Your task to perform on an android device: see creations saved in the google photos Image 0: 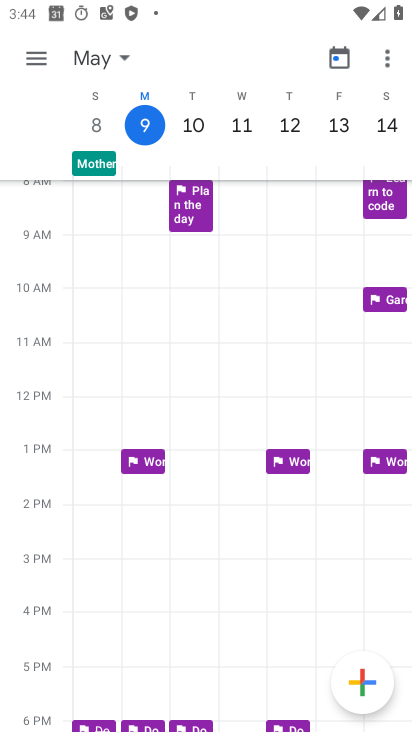
Step 0: press home button
Your task to perform on an android device: see creations saved in the google photos Image 1: 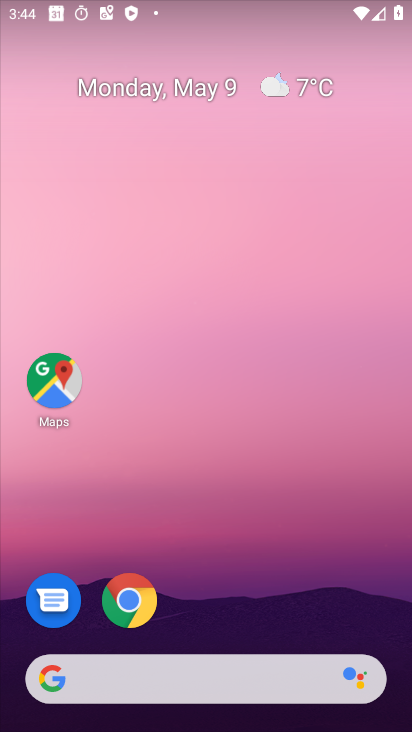
Step 1: drag from (273, 611) to (246, 107)
Your task to perform on an android device: see creations saved in the google photos Image 2: 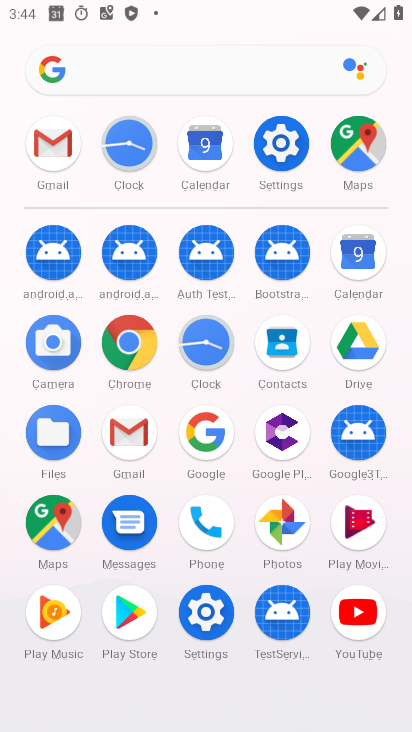
Step 2: click (284, 528)
Your task to perform on an android device: see creations saved in the google photos Image 3: 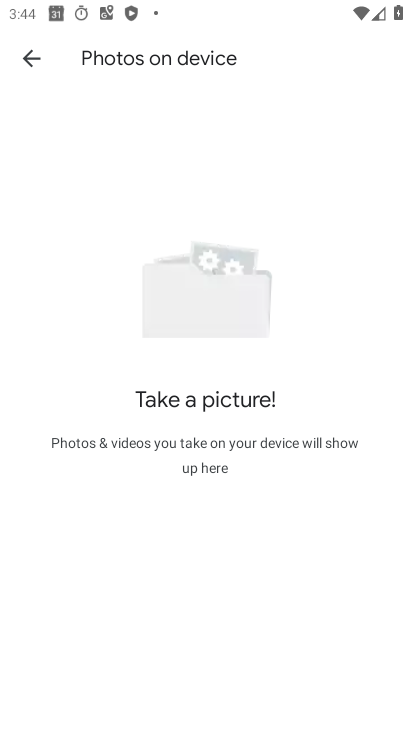
Step 3: click (36, 54)
Your task to perform on an android device: see creations saved in the google photos Image 4: 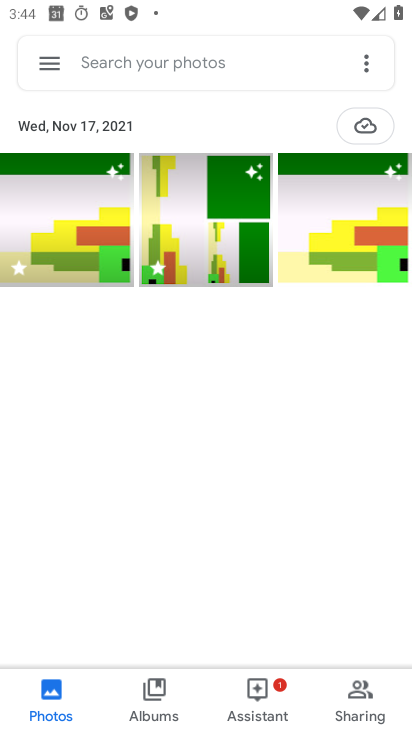
Step 4: click (158, 694)
Your task to perform on an android device: see creations saved in the google photos Image 5: 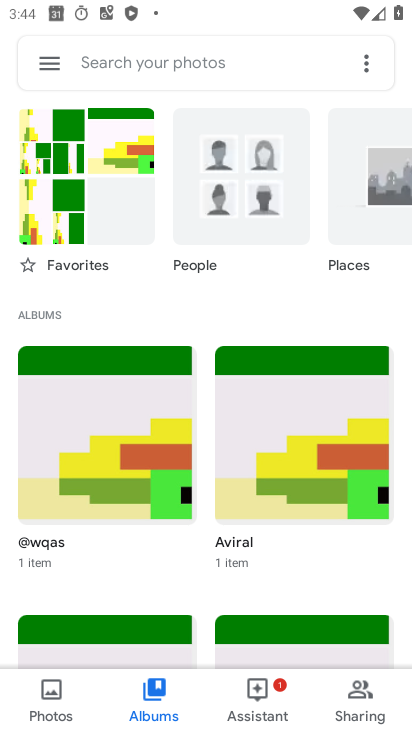
Step 5: drag from (344, 202) to (66, 217)
Your task to perform on an android device: see creations saved in the google photos Image 6: 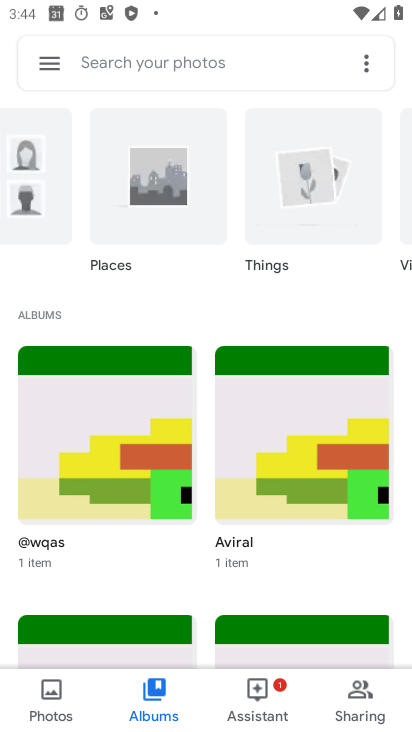
Step 6: drag from (326, 192) to (3, 328)
Your task to perform on an android device: see creations saved in the google photos Image 7: 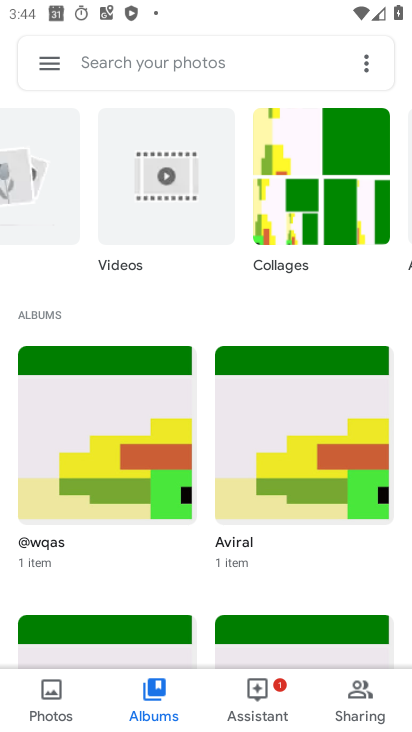
Step 7: drag from (308, 164) to (12, 333)
Your task to perform on an android device: see creations saved in the google photos Image 8: 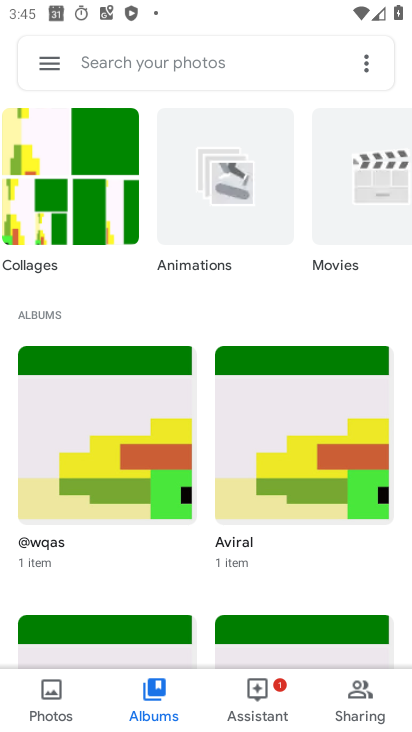
Step 8: drag from (274, 165) to (5, 470)
Your task to perform on an android device: see creations saved in the google photos Image 9: 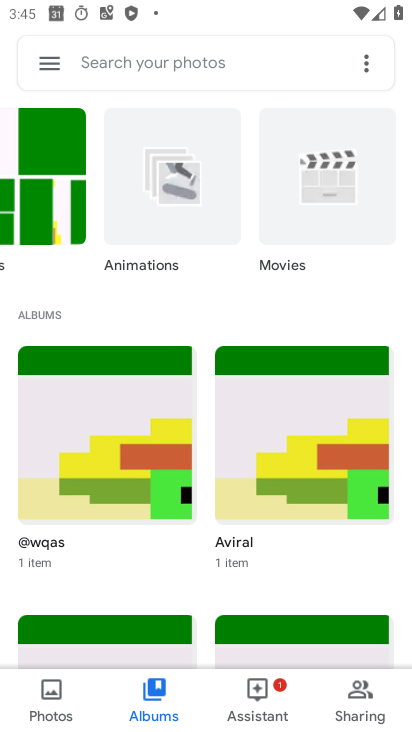
Step 9: click (357, 703)
Your task to perform on an android device: see creations saved in the google photos Image 10: 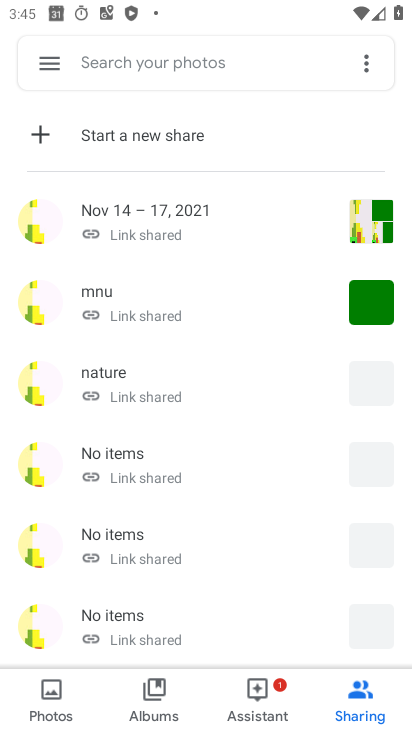
Step 10: click (279, 702)
Your task to perform on an android device: see creations saved in the google photos Image 11: 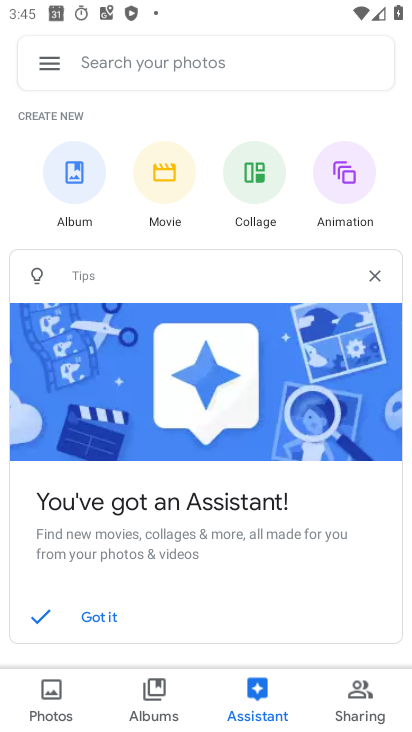
Step 11: task complete